Your task to perform on an android device: Go to settings Image 0: 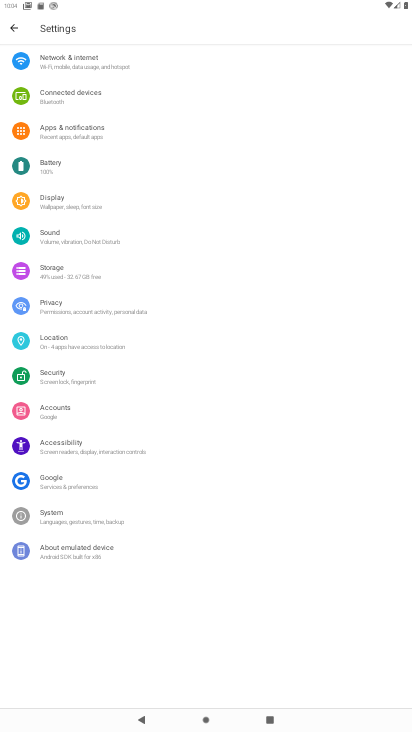
Step 0: drag from (292, 354) to (289, 492)
Your task to perform on an android device: Go to settings Image 1: 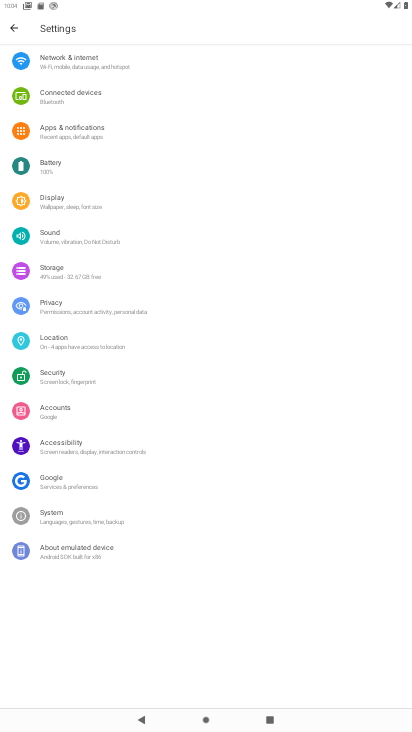
Step 1: task complete